Your task to perform on an android device: turn off javascript in the chrome app Image 0: 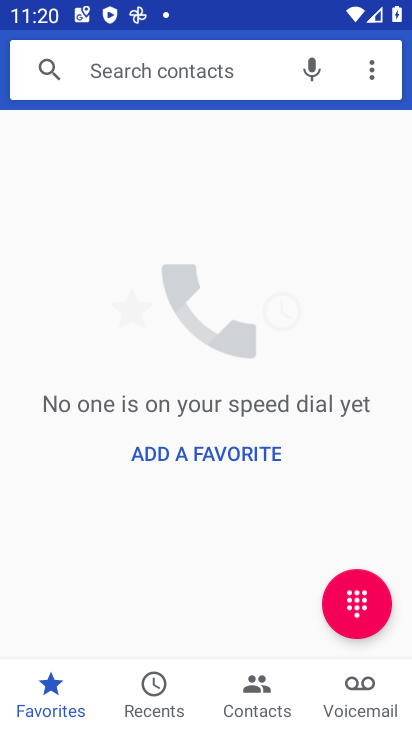
Step 0: press home button
Your task to perform on an android device: turn off javascript in the chrome app Image 1: 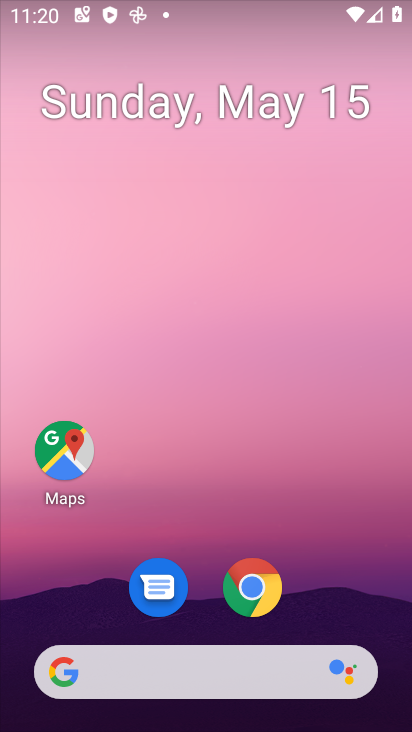
Step 1: drag from (396, 627) to (320, 76)
Your task to perform on an android device: turn off javascript in the chrome app Image 2: 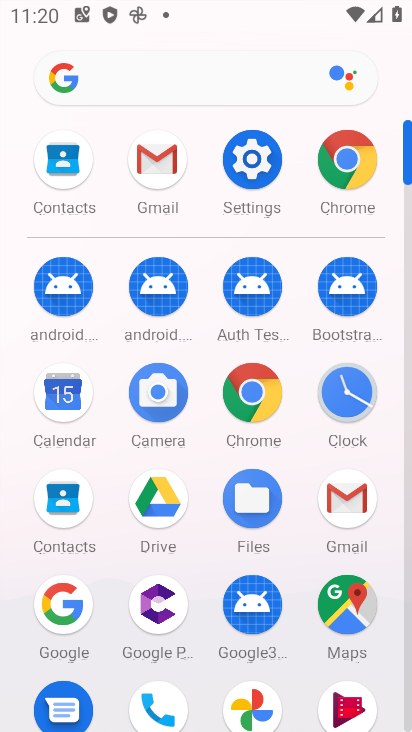
Step 2: click (270, 395)
Your task to perform on an android device: turn off javascript in the chrome app Image 3: 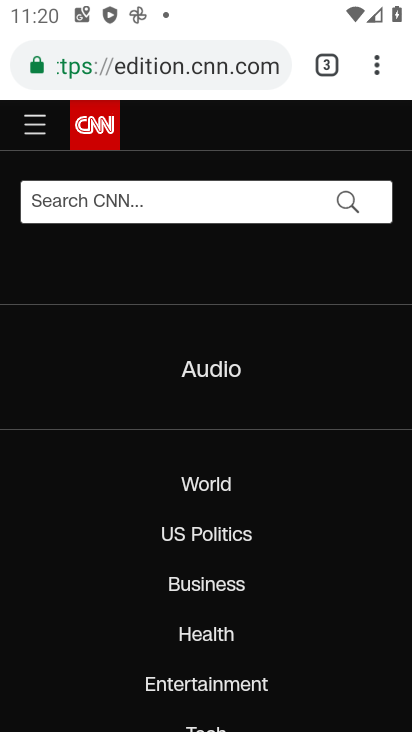
Step 3: press back button
Your task to perform on an android device: turn off javascript in the chrome app Image 4: 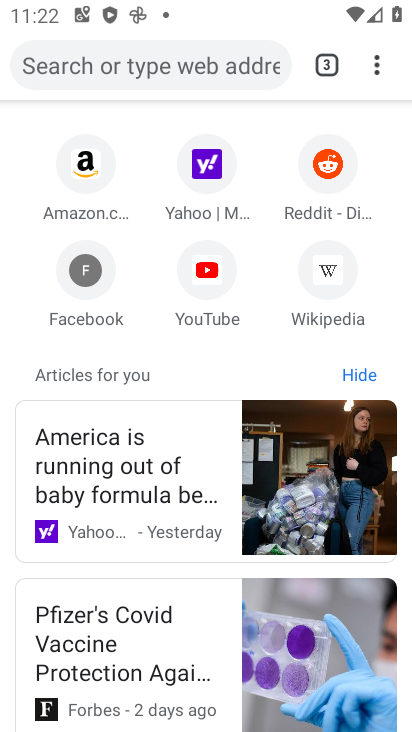
Step 4: click (375, 67)
Your task to perform on an android device: turn off javascript in the chrome app Image 5: 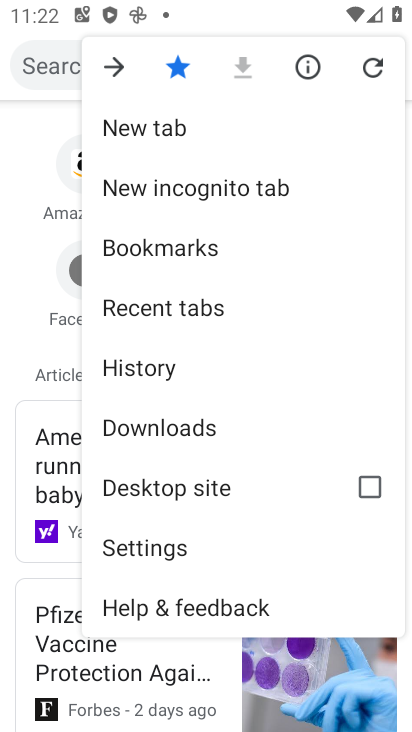
Step 5: click (211, 561)
Your task to perform on an android device: turn off javascript in the chrome app Image 6: 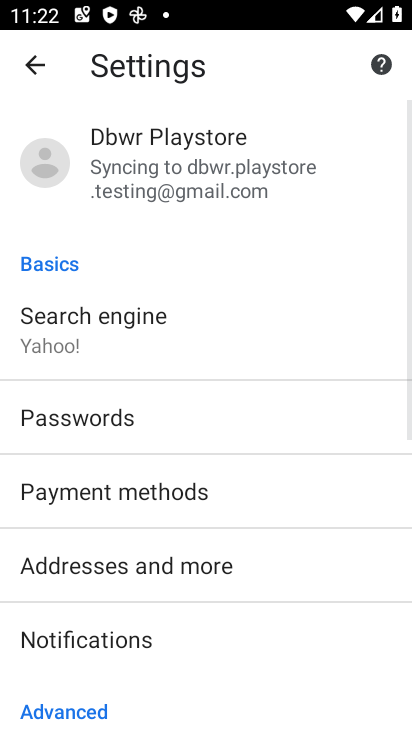
Step 6: drag from (190, 645) to (279, 240)
Your task to perform on an android device: turn off javascript in the chrome app Image 7: 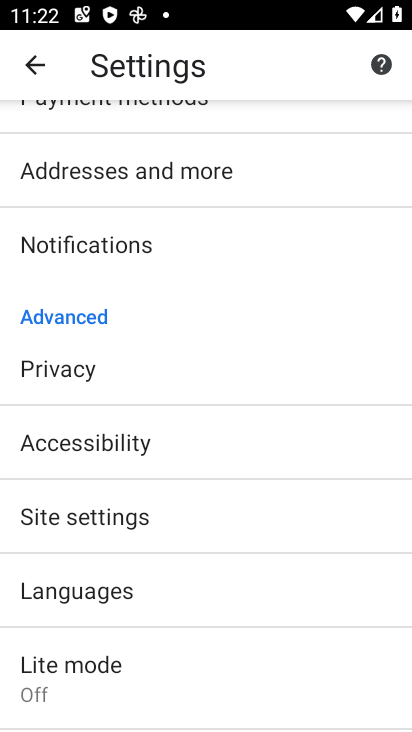
Step 7: click (169, 537)
Your task to perform on an android device: turn off javascript in the chrome app Image 8: 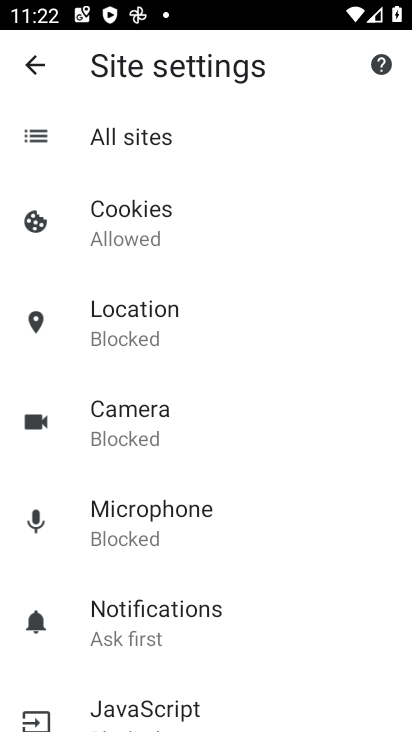
Step 8: click (206, 712)
Your task to perform on an android device: turn off javascript in the chrome app Image 9: 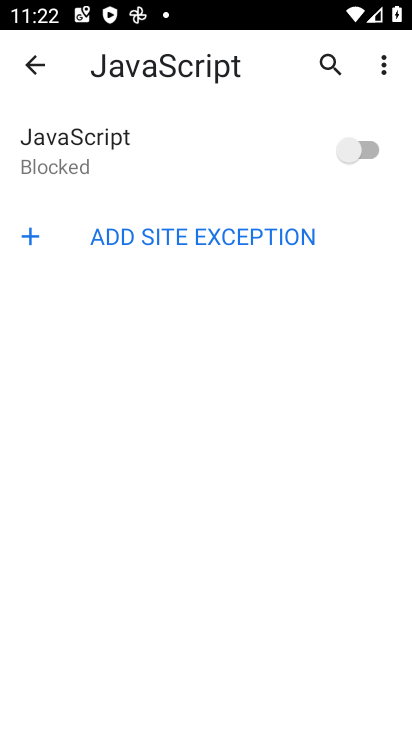
Step 9: task complete